Your task to perform on an android device: Open maps Image 0: 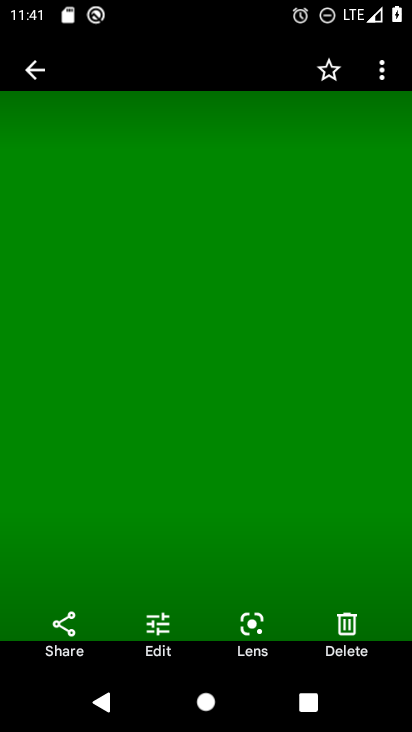
Step 0: press home button
Your task to perform on an android device: Open maps Image 1: 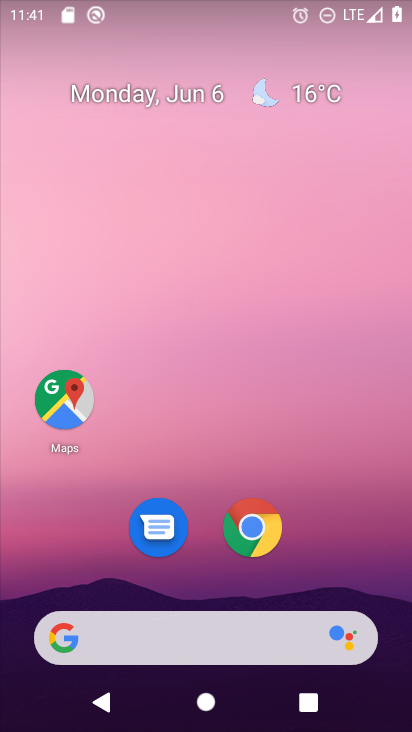
Step 1: drag from (345, 521) to (319, 201)
Your task to perform on an android device: Open maps Image 2: 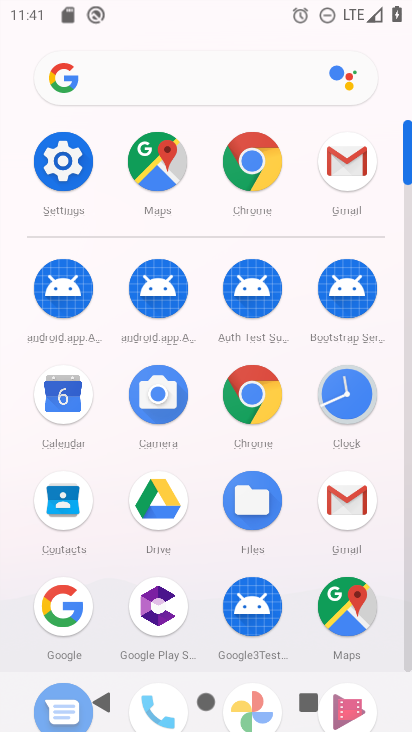
Step 2: click (348, 607)
Your task to perform on an android device: Open maps Image 3: 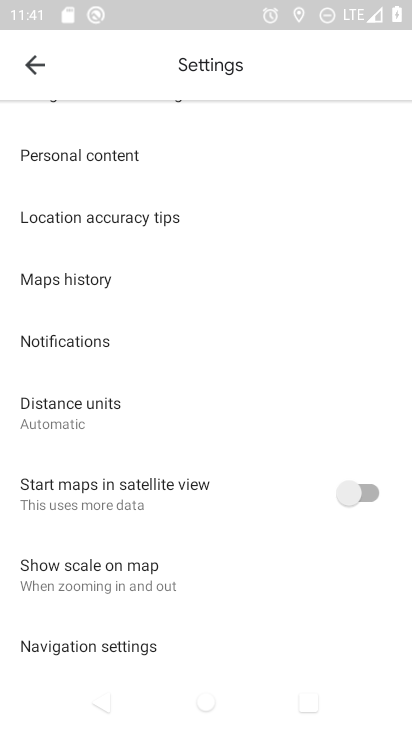
Step 3: task complete